Your task to perform on an android device: open chrome privacy settings Image 0: 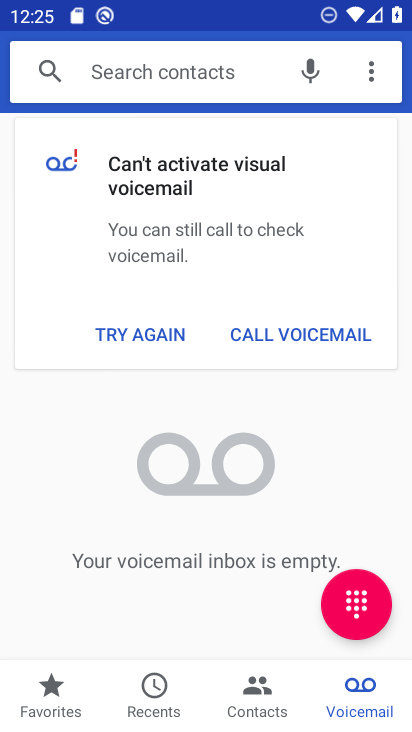
Step 0: press home button
Your task to perform on an android device: open chrome privacy settings Image 1: 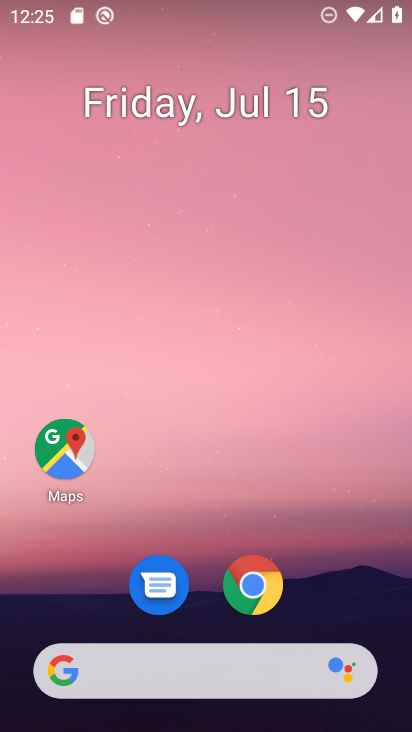
Step 1: click (270, 595)
Your task to perform on an android device: open chrome privacy settings Image 2: 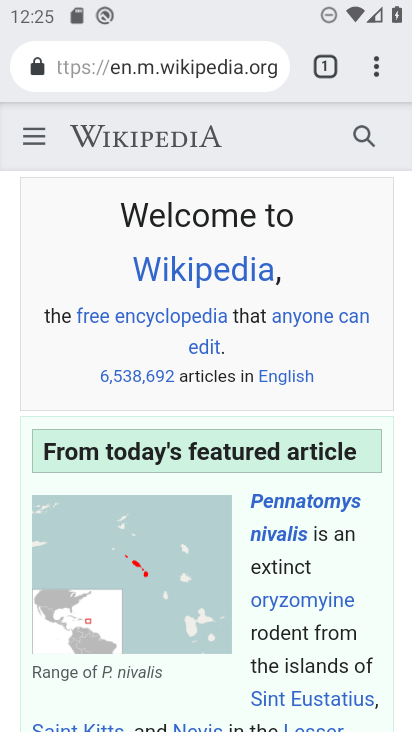
Step 2: click (374, 66)
Your task to perform on an android device: open chrome privacy settings Image 3: 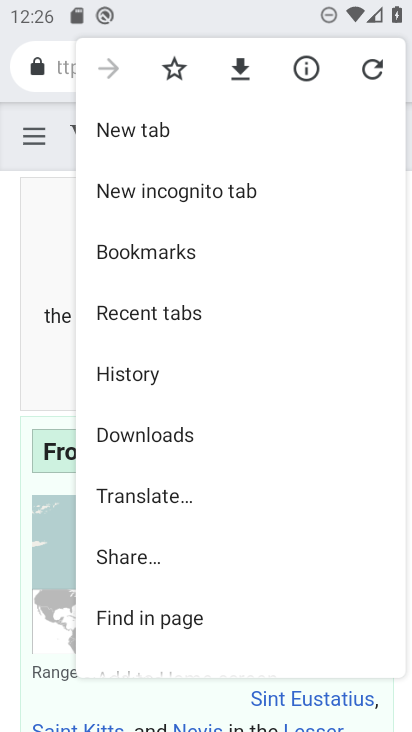
Step 3: drag from (256, 493) to (269, 223)
Your task to perform on an android device: open chrome privacy settings Image 4: 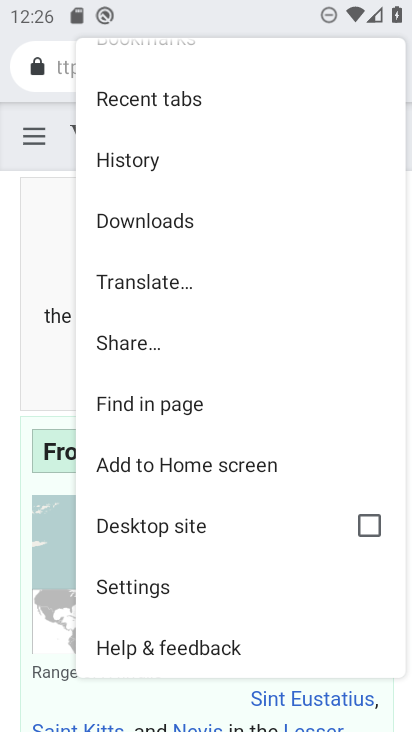
Step 4: click (140, 588)
Your task to perform on an android device: open chrome privacy settings Image 5: 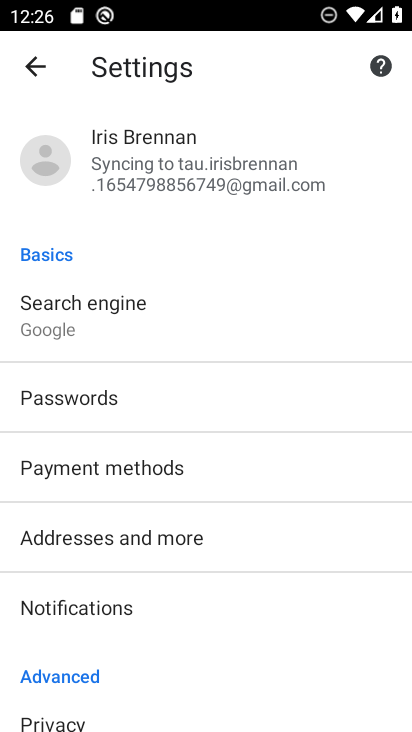
Step 5: drag from (163, 485) to (173, 396)
Your task to perform on an android device: open chrome privacy settings Image 6: 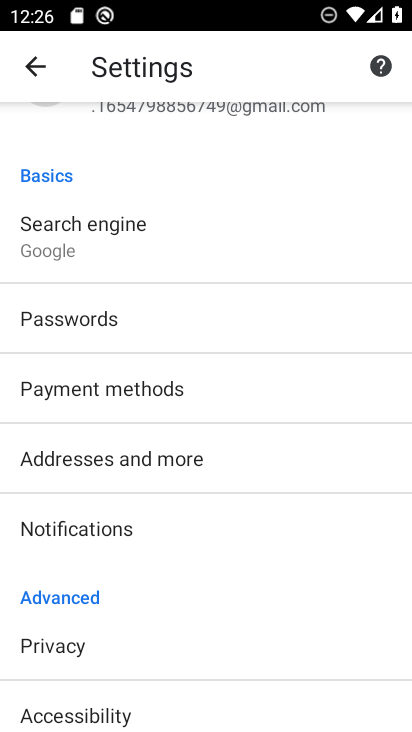
Step 6: click (76, 645)
Your task to perform on an android device: open chrome privacy settings Image 7: 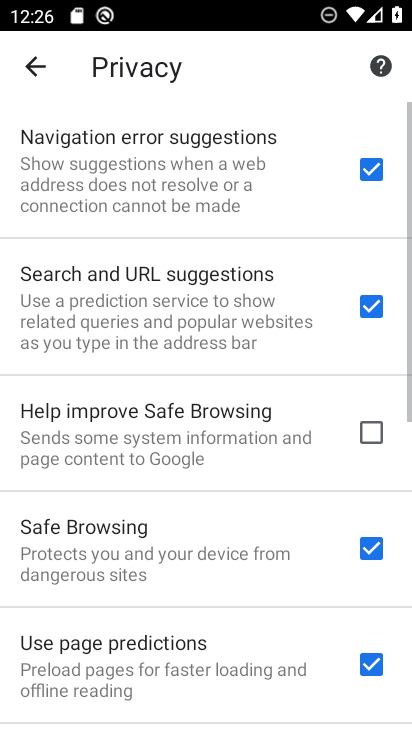
Step 7: task complete